Your task to perform on an android device: delete location history Image 0: 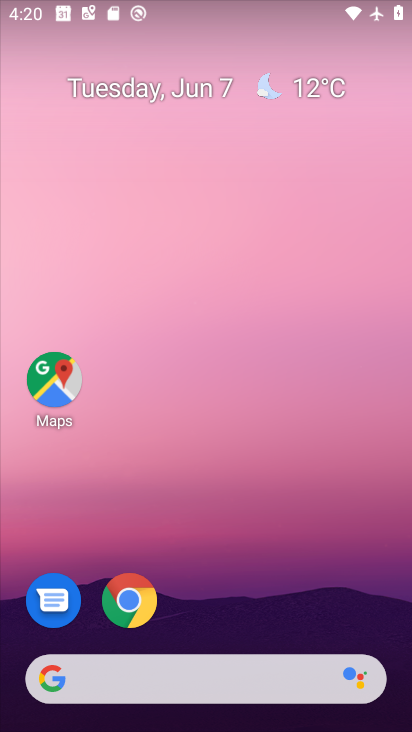
Step 0: drag from (290, 455) to (257, 105)
Your task to perform on an android device: delete location history Image 1: 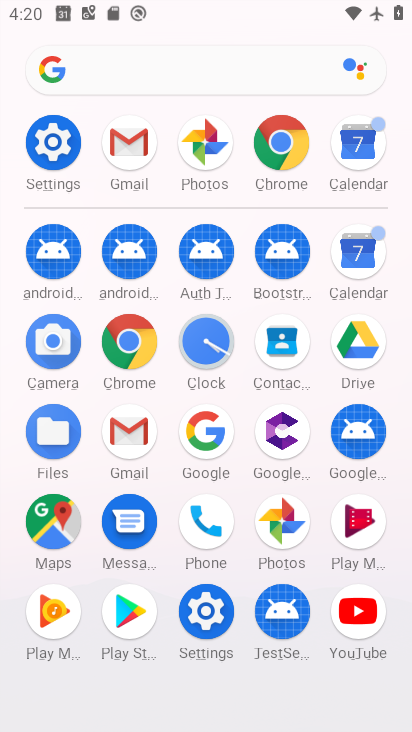
Step 1: click (44, 513)
Your task to perform on an android device: delete location history Image 2: 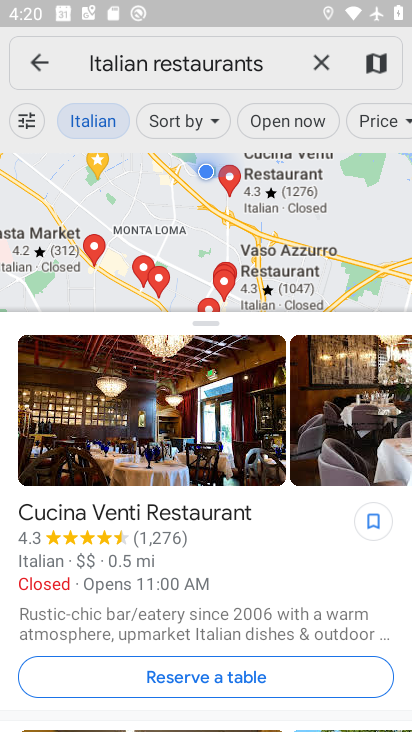
Step 2: click (29, 51)
Your task to perform on an android device: delete location history Image 3: 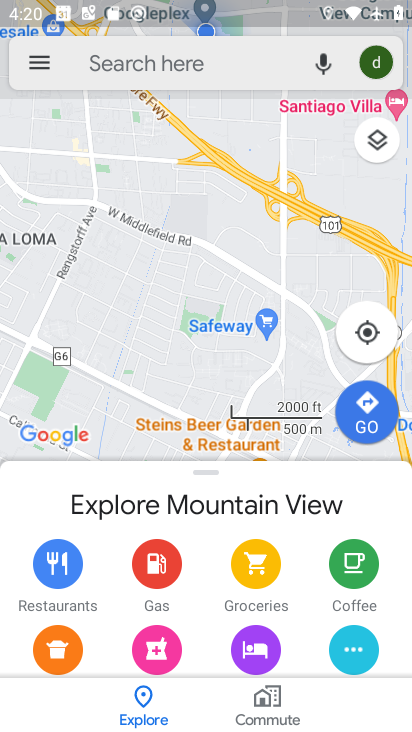
Step 3: click (30, 52)
Your task to perform on an android device: delete location history Image 4: 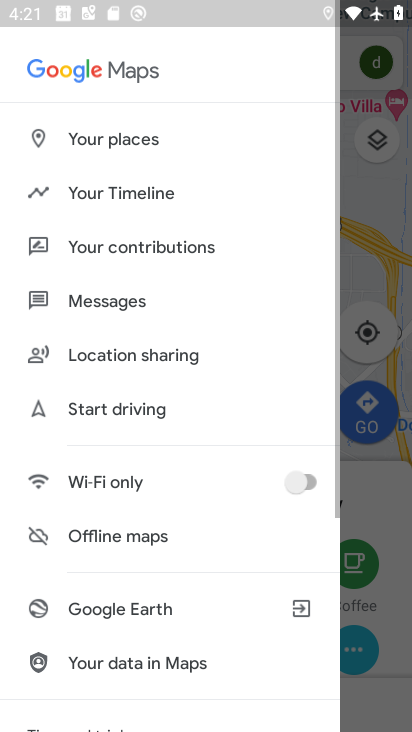
Step 4: drag from (138, 520) to (208, 2)
Your task to perform on an android device: delete location history Image 5: 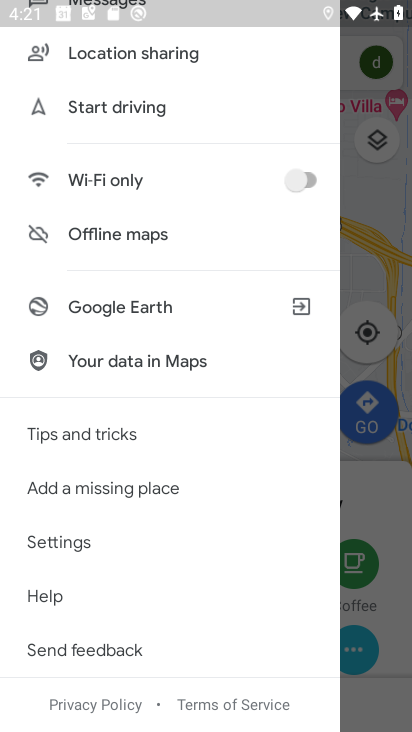
Step 5: click (68, 537)
Your task to perform on an android device: delete location history Image 6: 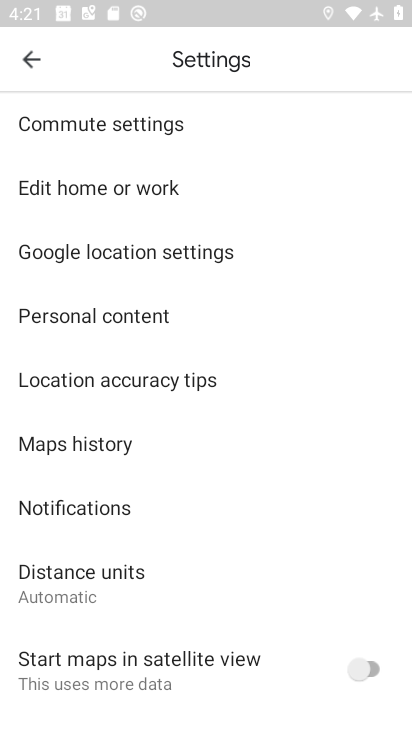
Step 6: click (97, 451)
Your task to perform on an android device: delete location history Image 7: 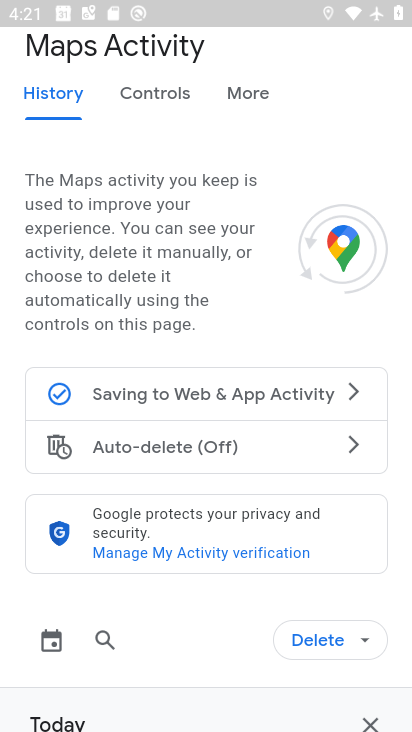
Step 7: drag from (136, 493) to (192, 163)
Your task to perform on an android device: delete location history Image 8: 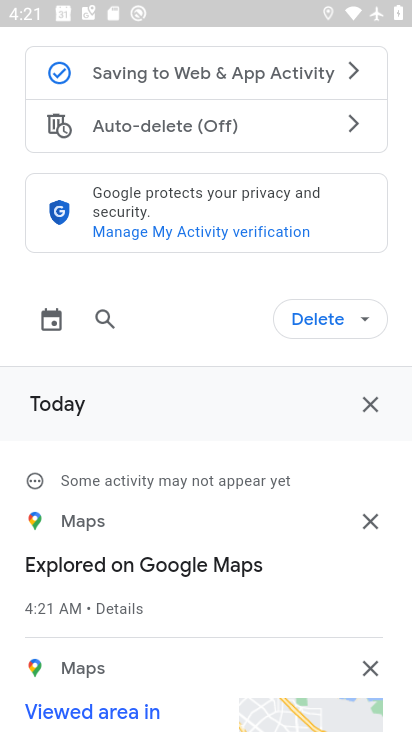
Step 8: click (330, 318)
Your task to perform on an android device: delete location history Image 9: 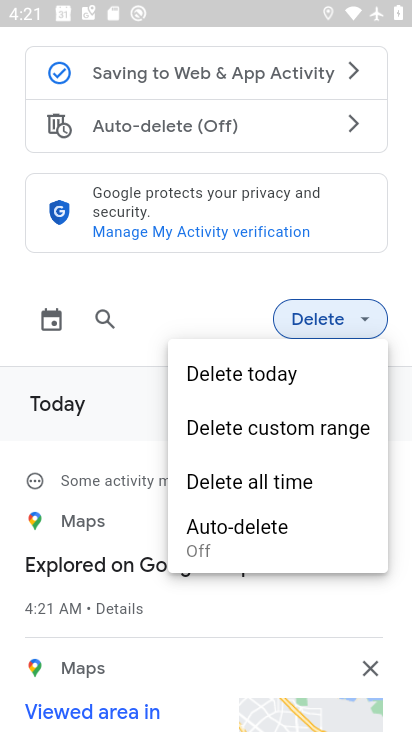
Step 9: click (268, 488)
Your task to perform on an android device: delete location history Image 10: 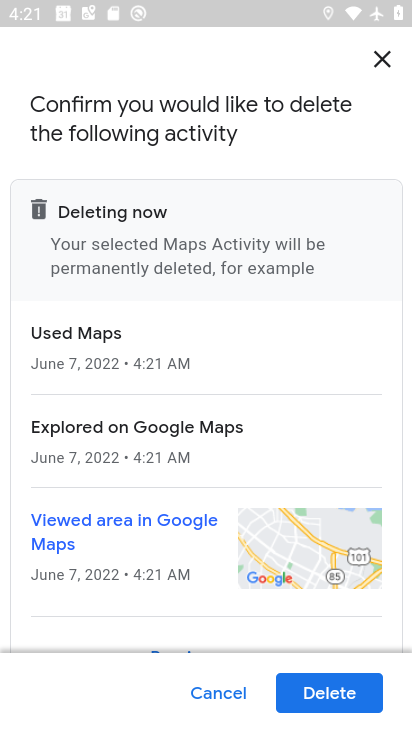
Step 10: click (343, 685)
Your task to perform on an android device: delete location history Image 11: 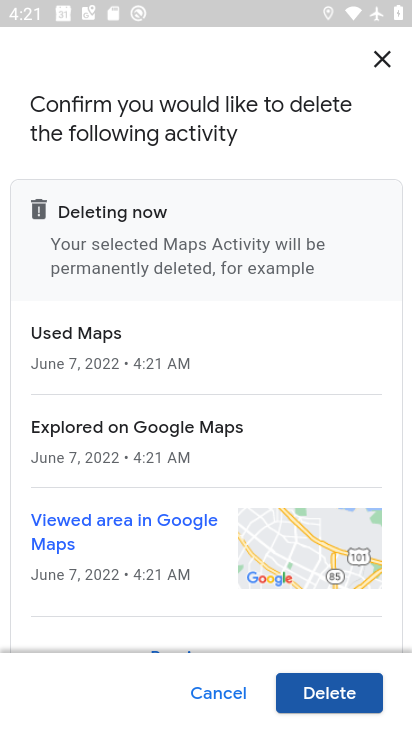
Step 11: click (335, 684)
Your task to perform on an android device: delete location history Image 12: 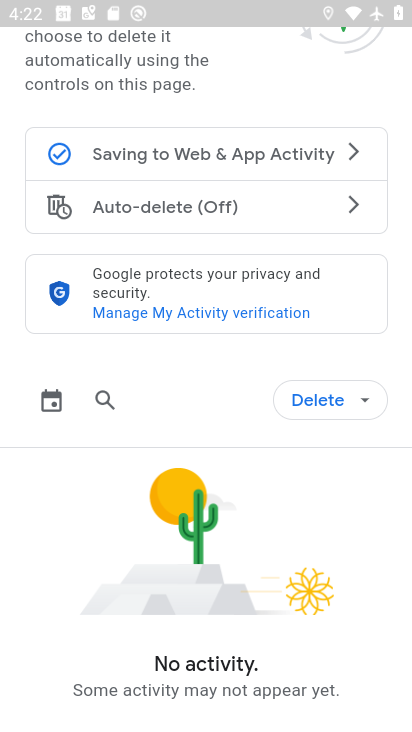
Step 12: task complete